Your task to perform on an android device: turn on sleep mode Image 0: 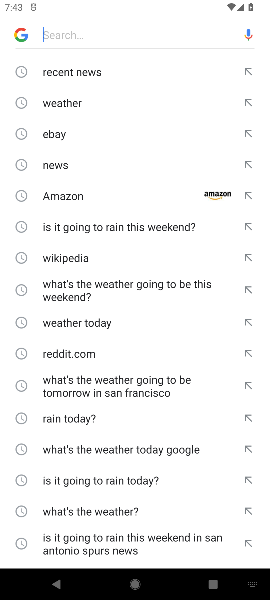
Step 0: press home button
Your task to perform on an android device: turn on sleep mode Image 1: 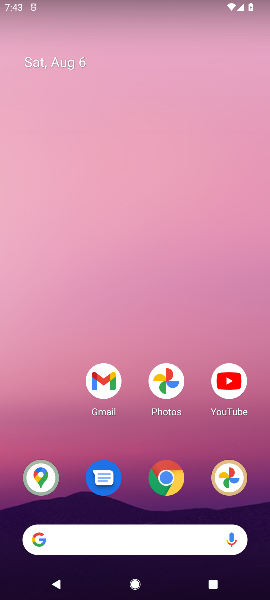
Step 1: drag from (33, 422) to (63, 147)
Your task to perform on an android device: turn on sleep mode Image 2: 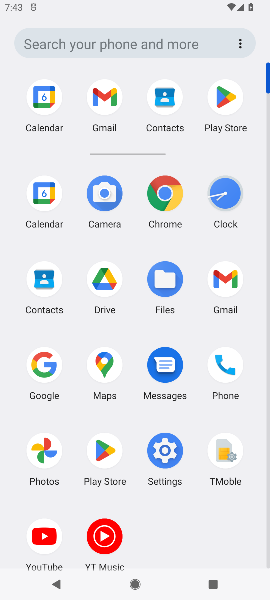
Step 2: click (156, 445)
Your task to perform on an android device: turn on sleep mode Image 3: 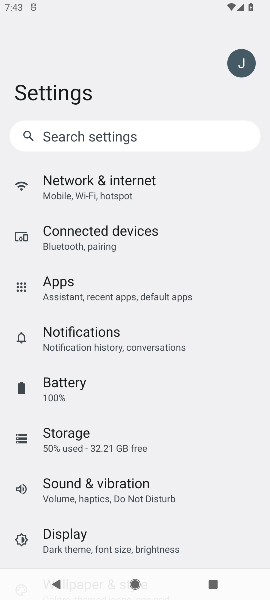
Step 3: click (102, 539)
Your task to perform on an android device: turn on sleep mode Image 4: 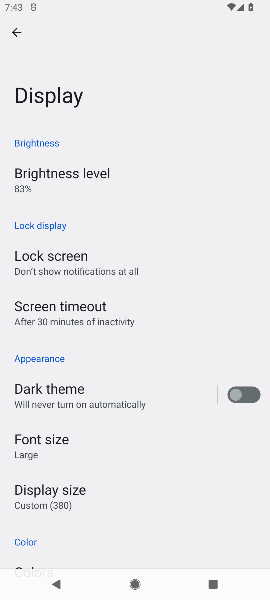
Step 4: task complete